Your task to perform on an android device: See recent photos Image 0: 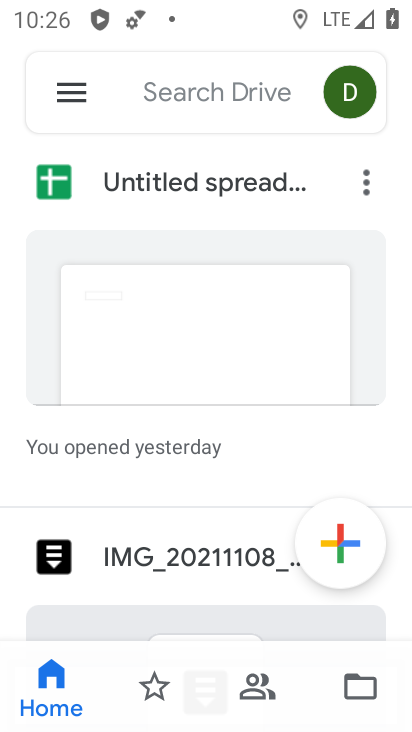
Step 0: press home button
Your task to perform on an android device: See recent photos Image 1: 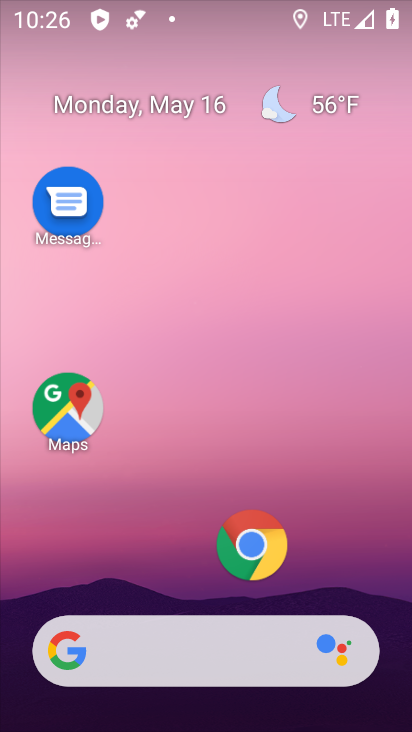
Step 1: drag from (195, 615) to (178, 69)
Your task to perform on an android device: See recent photos Image 2: 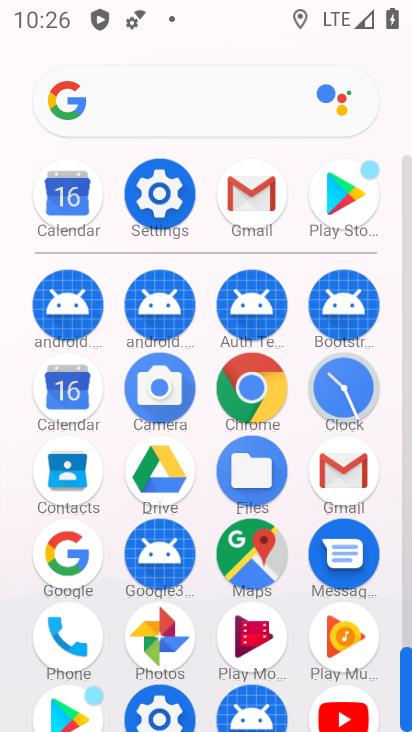
Step 2: click (164, 647)
Your task to perform on an android device: See recent photos Image 3: 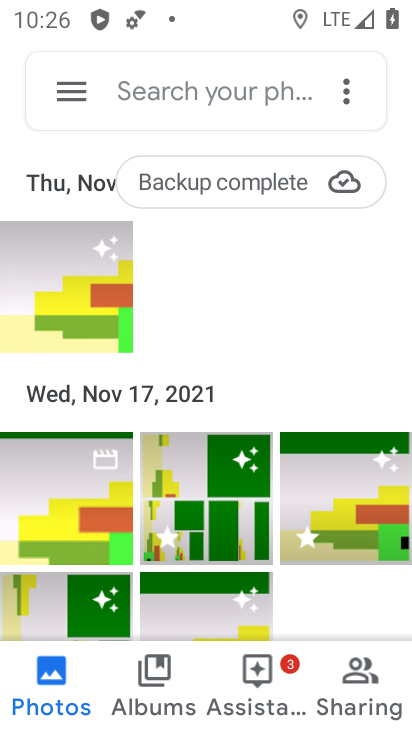
Step 3: task complete